Your task to perform on an android device: allow notifications from all sites in the chrome app Image 0: 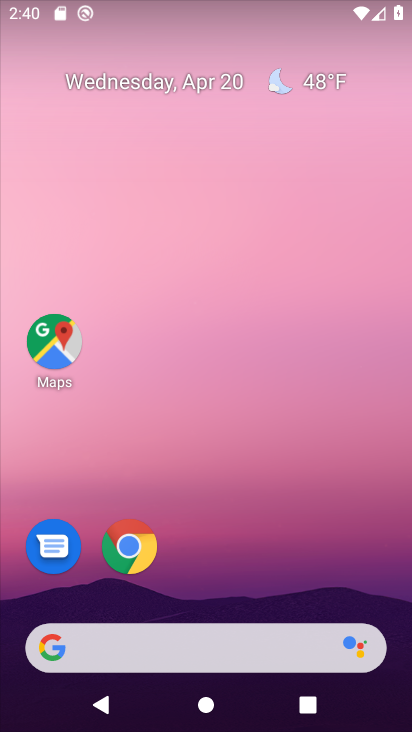
Step 0: click (234, 339)
Your task to perform on an android device: allow notifications from all sites in the chrome app Image 1: 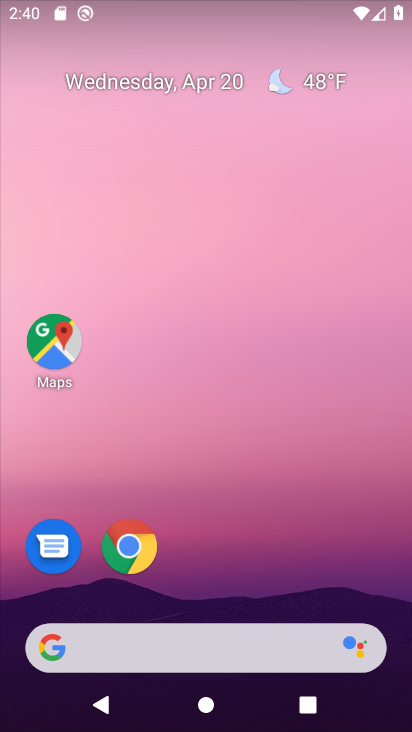
Step 1: drag from (199, 633) to (250, 314)
Your task to perform on an android device: allow notifications from all sites in the chrome app Image 2: 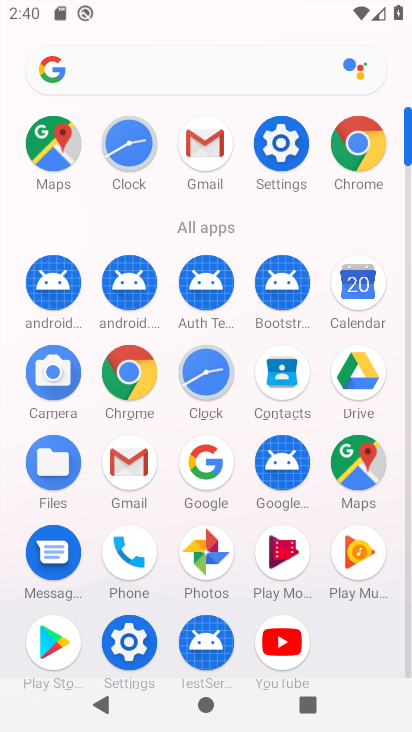
Step 2: click (132, 361)
Your task to perform on an android device: allow notifications from all sites in the chrome app Image 3: 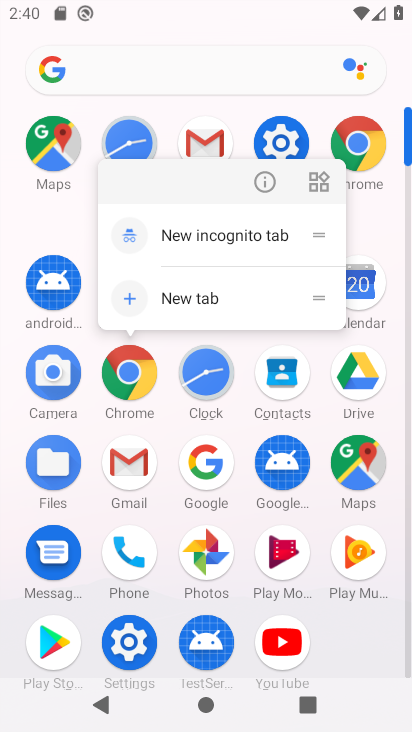
Step 3: click (131, 359)
Your task to perform on an android device: allow notifications from all sites in the chrome app Image 4: 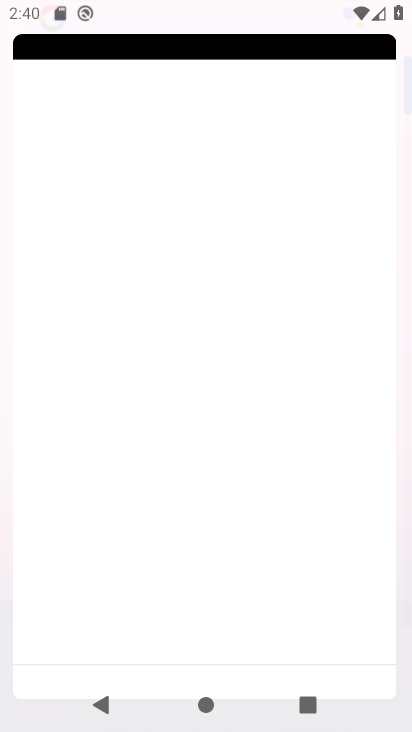
Step 4: click (131, 359)
Your task to perform on an android device: allow notifications from all sites in the chrome app Image 5: 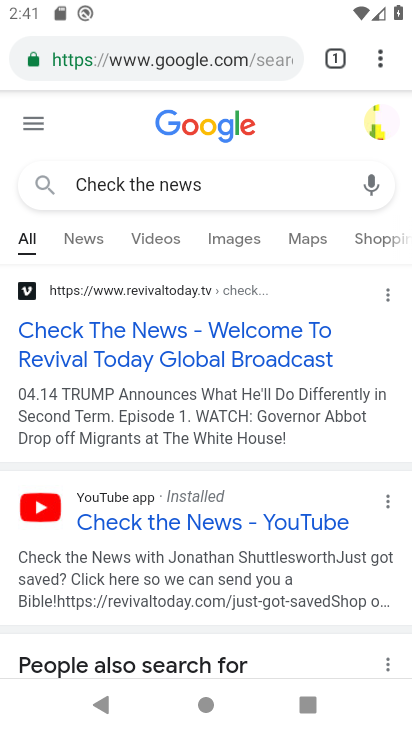
Step 5: click (382, 50)
Your task to perform on an android device: allow notifications from all sites in the chrome app Image 6: 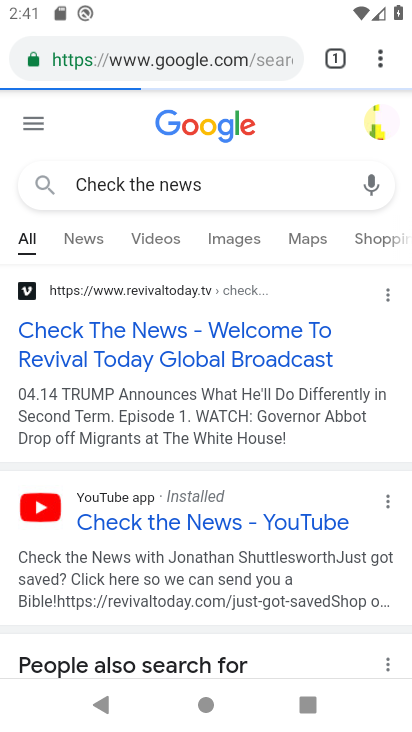
Step 6: click (376, 51)
Your task to perform on an android device: allow notifications from all sites in the chrome app Image 7: 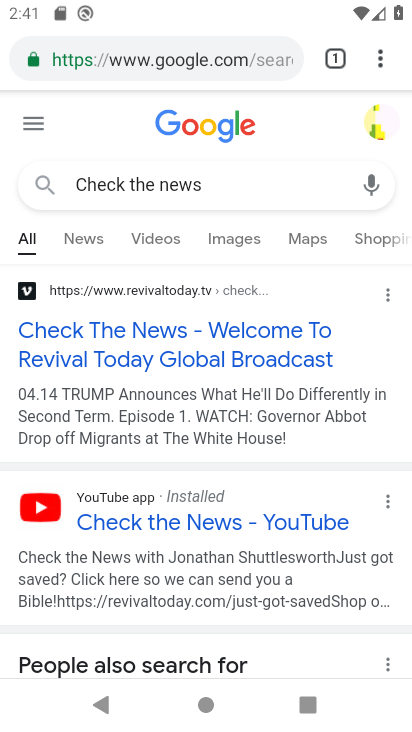
Step 7: click (376, 51)
Your task to perform on an android device: allow notifications from all sites in the chrome app Image 8: 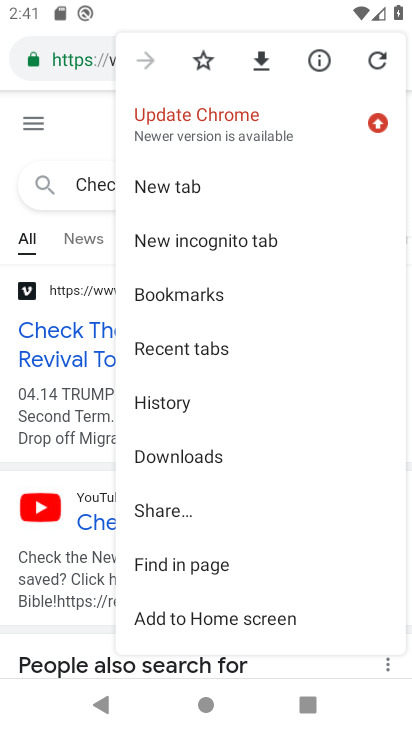
Step 8: drag from (277, 629) to (278, 330)
Your task to perform on an android device: allow notifications from all sites in the chrome app Image 9: 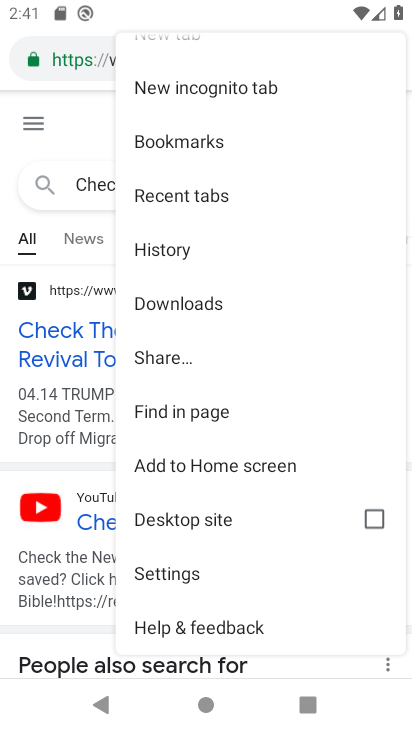
Step 9: click (196, 572)
Your task to perform on an android device: allow notifications from all sites in the chrome app Image 10: 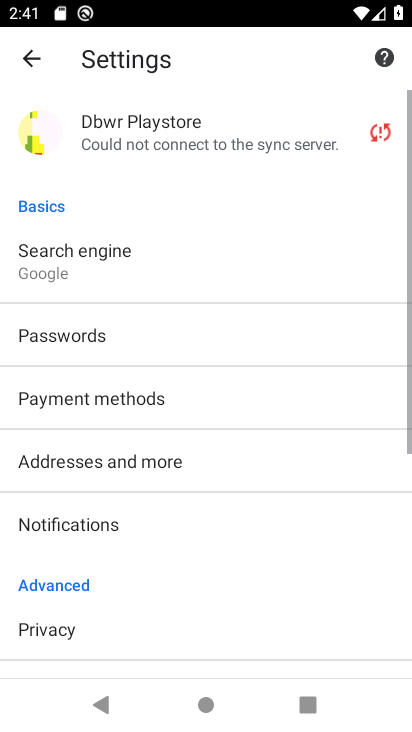
Step 10: drag from (122, 538) to (182, 191)
Your task to perform on an android device: allow notifications from all sites in the chrome app Image 11: 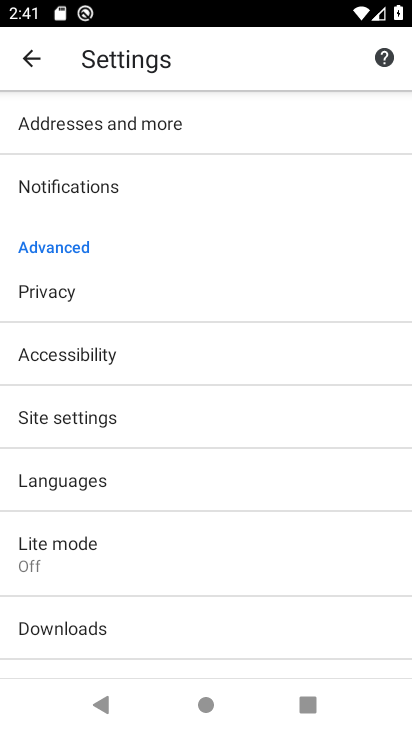
Step 11: click (108, 420)
Your task to perform on an android device: allow notifications from all sites in the chrome app Image 12: 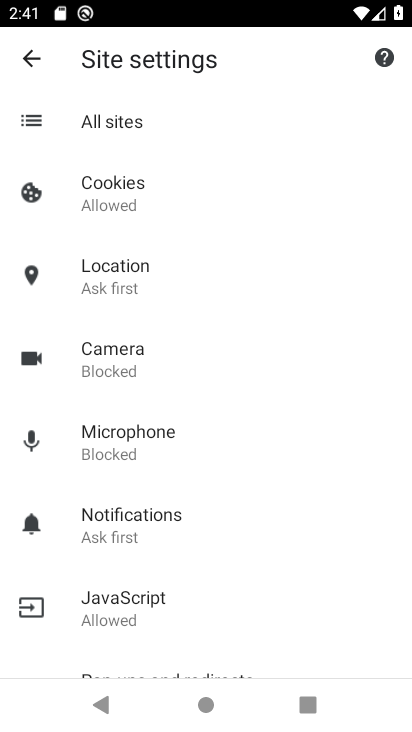
Step 12: drag from (141, 521) to (212, 224)
Your task to perform on an android device: allow notifications from all sites in the chrome app Image 13: 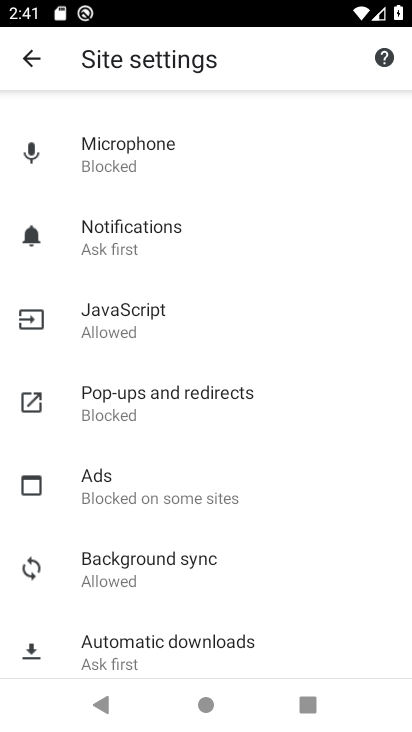
Step 13: drag from (170, 250) to (172, 603)
Your task to perform on an android device: allow notifications from all sites in the chrome app Image 14: 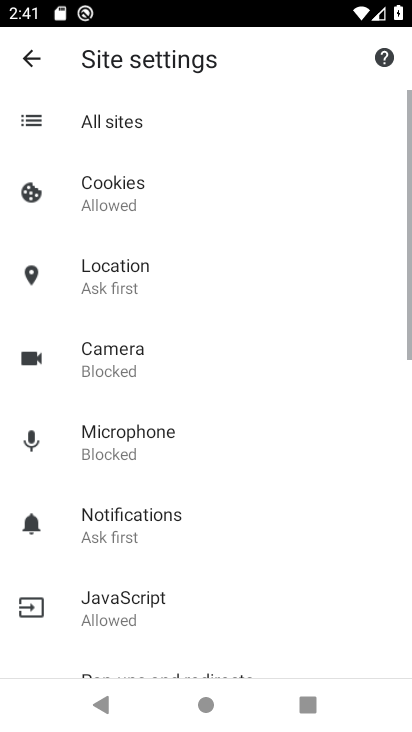
Step 14: click (158, 183)
Your task to perform on an android device: allow notifications from all sites in the chrome app Image 15: 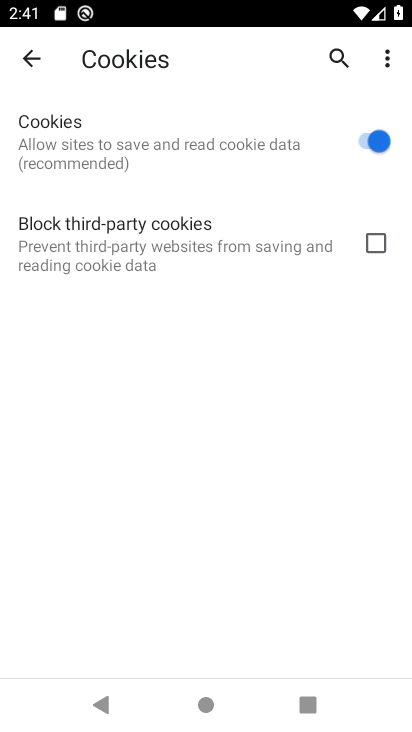
Step 15: click (30, 60)
Your task to perform on an android device: allow notifications from all sites in the chrome app Image 16: 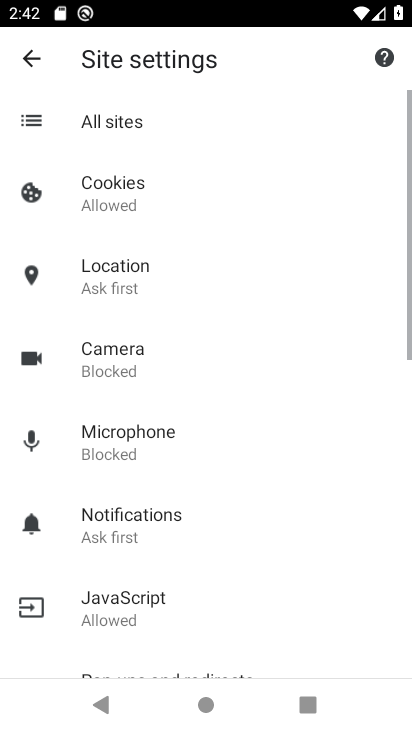
Step 16: click (165, 271)
Your task to perform on an android device: allow notifications from all sites in the chrome app Image 17: 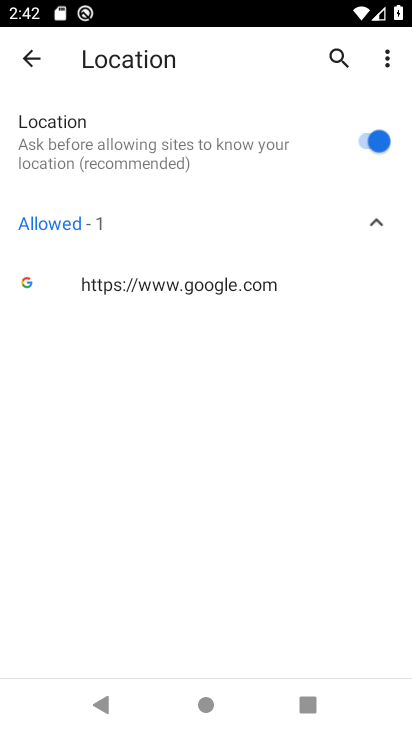
Step 17: click (32, 52)
Your task to perform on an android device: allow notifications from all sites in the chrome app Image 18: 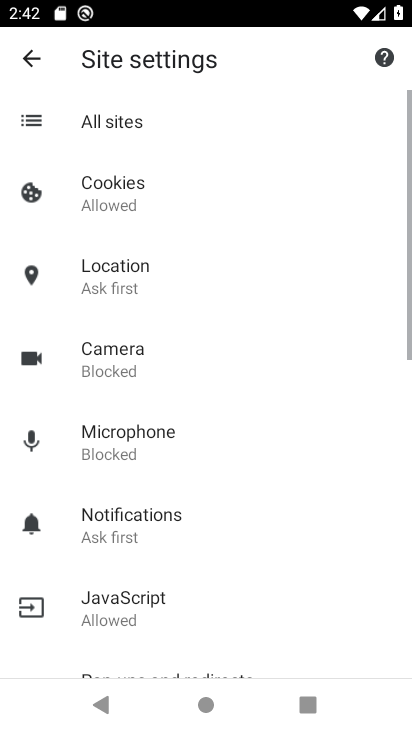
Step 18: click (141, 383)
Your task to perform on an android device: allow notifications from all sites in the chrome app Image 19: 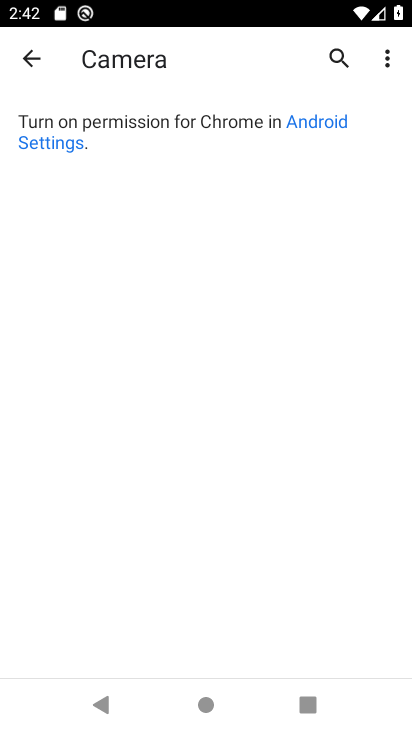
Step 19: click (39, 63)
Your task to perform on an android device: allow notifications from all sites in the chrome app Image 20: 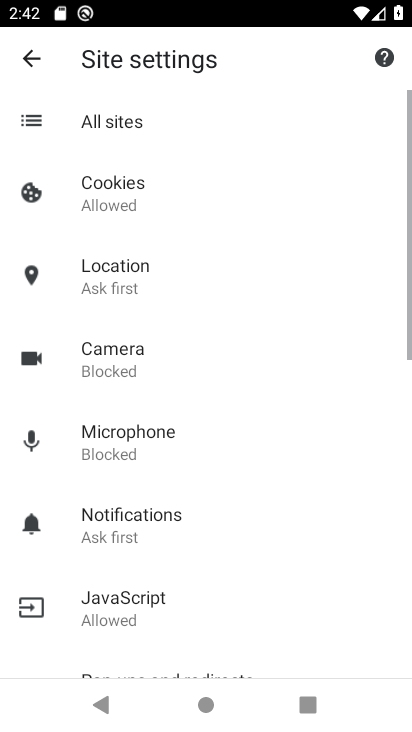
Step 20: click (137, 465)
Your task to perform on an android device: allow notifications from all sites in the chrome app Image 21: 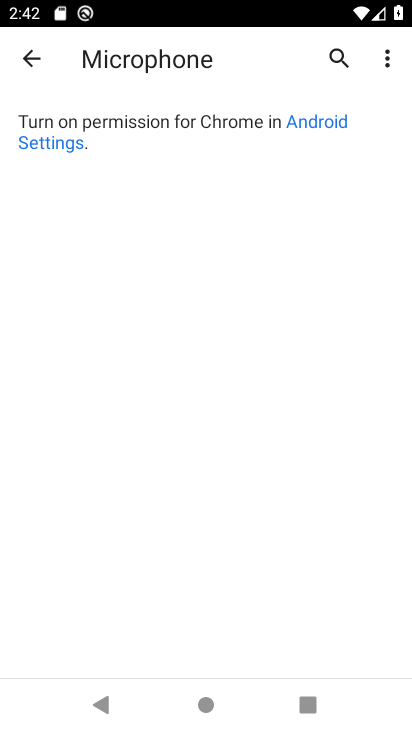
Step 21: click (30, 50)
Your task to perform on an android device: allow notifications from all sites in the chrome app Image 22: 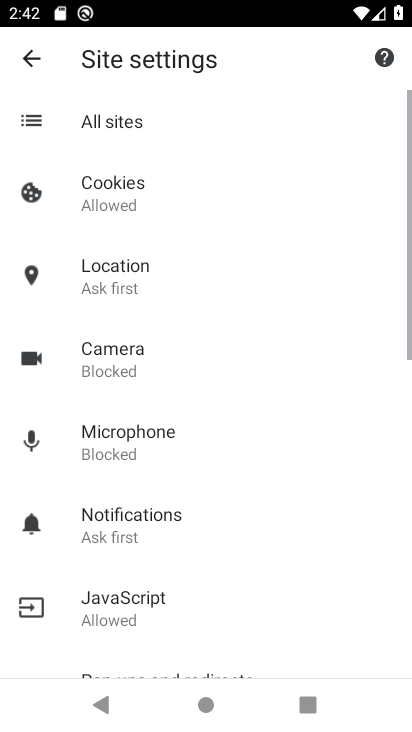
Step 22: click (145, 549)
Your task to perform on an android device: allow notifications from all sites in the chrome app Image 23: 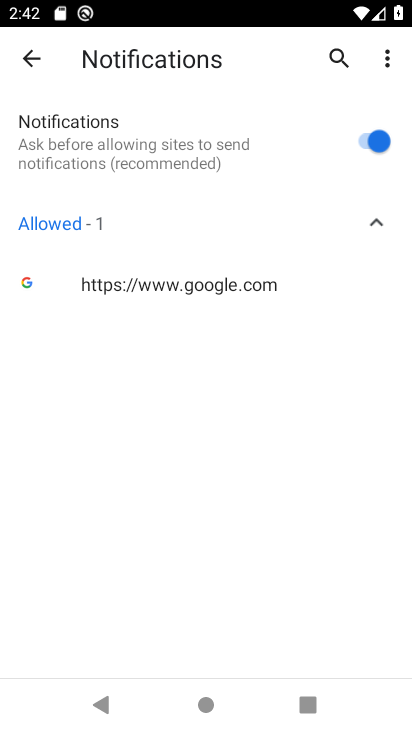
Step 23: click (14, 55)
Your task to perform on an android device: allow notifications from all sites in the chrome app Image 24: 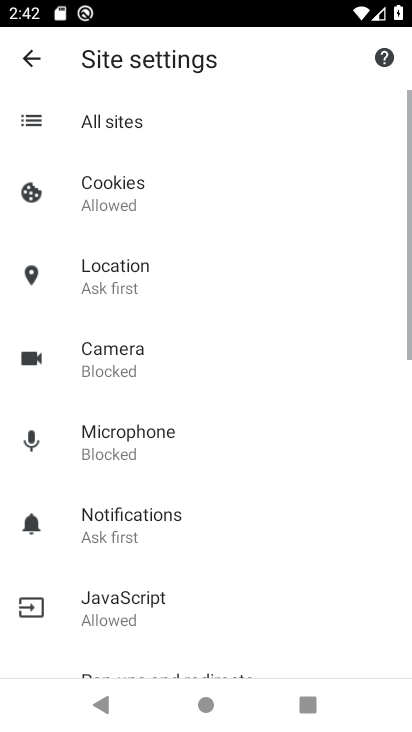
Step 24: drag from (154, 603) to (293, 203)
Your task to perform on an android device: allow notifications from all sites in the chrome app Image 25: 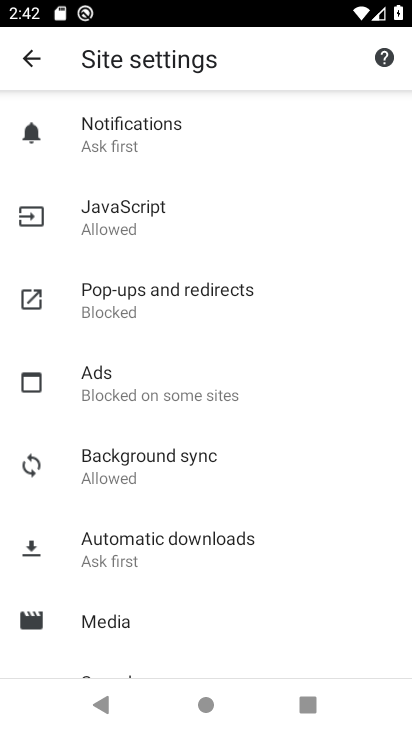
Step 25: click (147, 196)
Your task to perform on an android device: allow notifications from all sites in the chrome app Image 26: 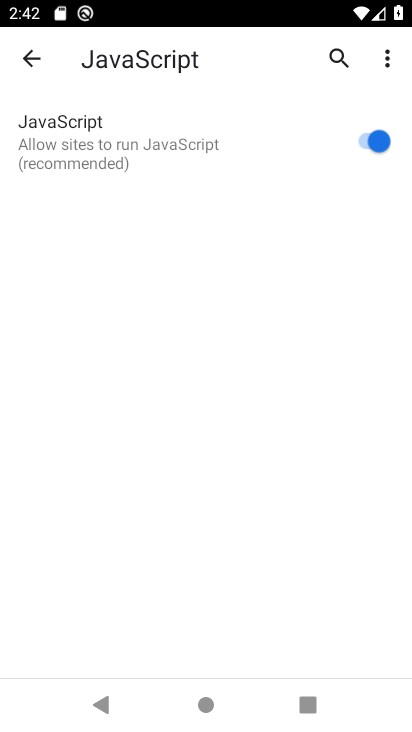
Step 26: click (36, 58)
Your task to perform on an android device: allow notifications from all sites in the chrome app Image 27: 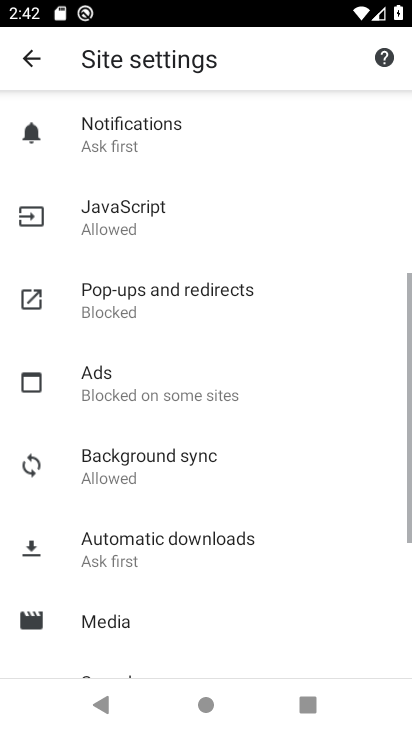
Step 27: click (178, 333)
Your task to perform on an android device: allow notifications from all sites in the chrome app Image 28: 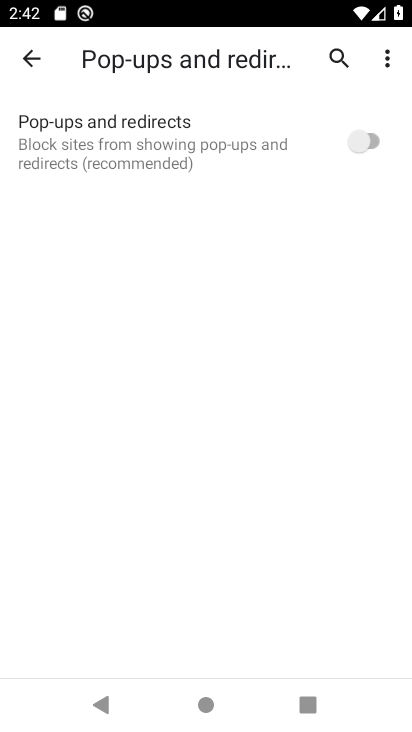
Step 28: click (385, 131)
Your task to perform on an android device: allow notifications from all sites in the chrome app Image 29: 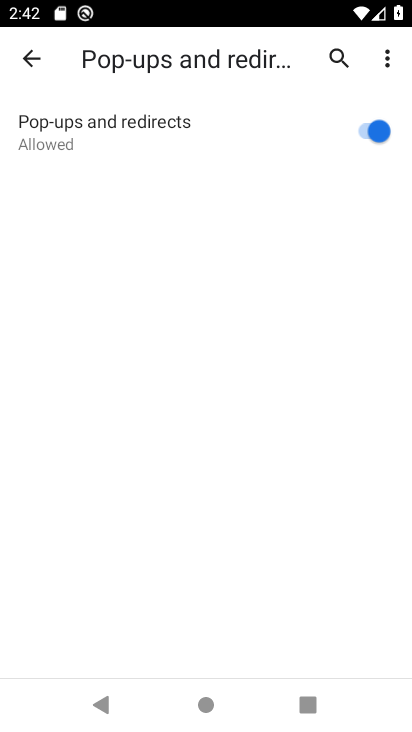
Step 29: click (30, 61)
Your task to perform on an android device: allow notifications from all sites in the chrome app Image 30: 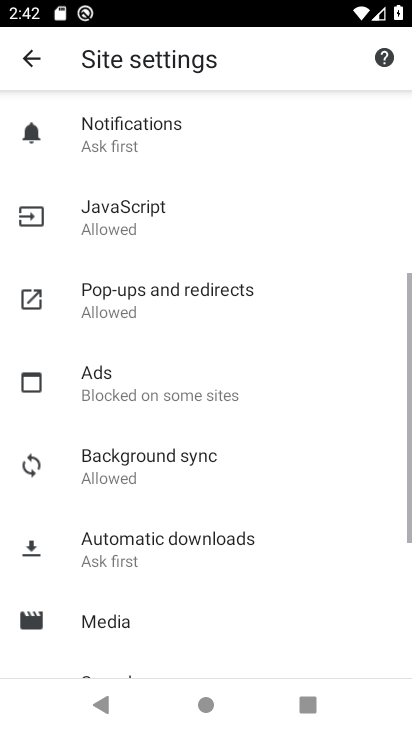
Step 30: click (156, 399)
Your task to perform on an android device: allow notifications from all sites in the chrome app Image 31: 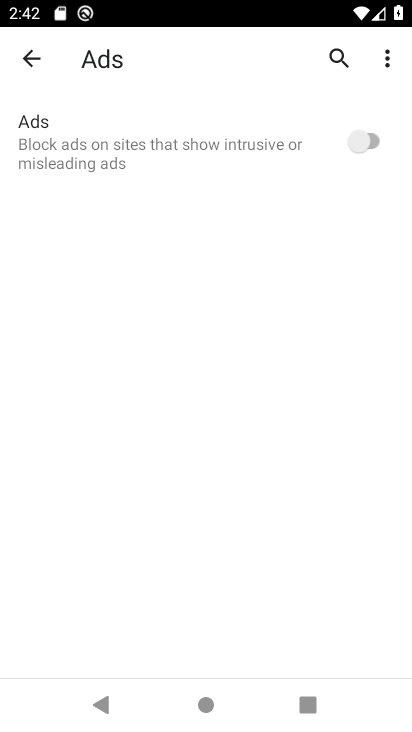
Step 31: click (356, 133)
Your task to perform on an android device: allow notifications from all sites in the chrome app Image 32: 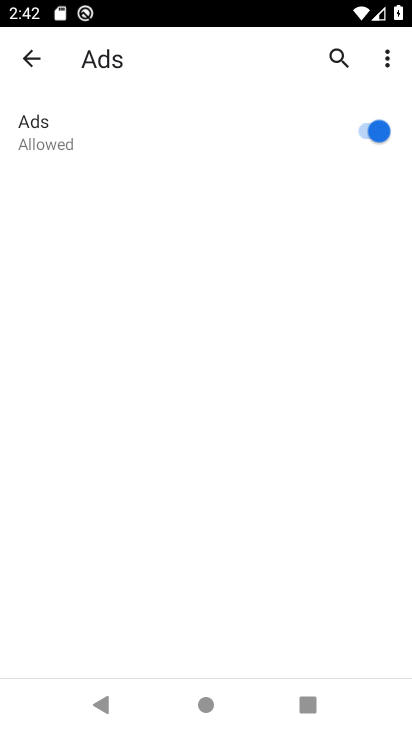
Step 32: click (16, 54)
Your task to perform on an android device: allow notifications from all sites in the chrome app Image 33: 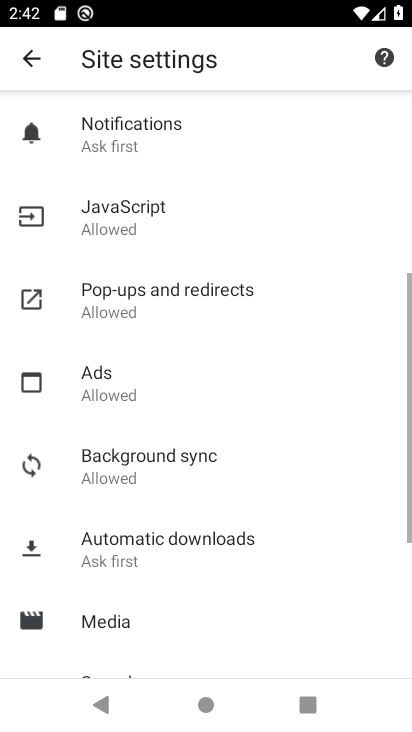
Step 33: click (144, 473)
Your task to perform on an android device: allow notifications from all sites in the chrome app Image 34: 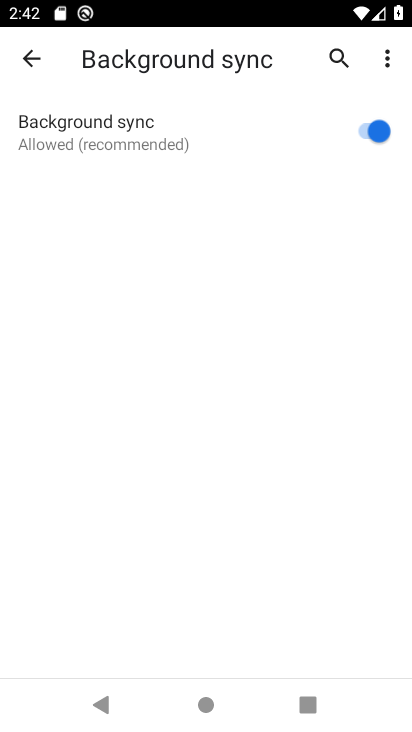
Step 34: click (38, 54)
Your task to perform on an android device: allow notifications from all sites in the chrome app Image 35: 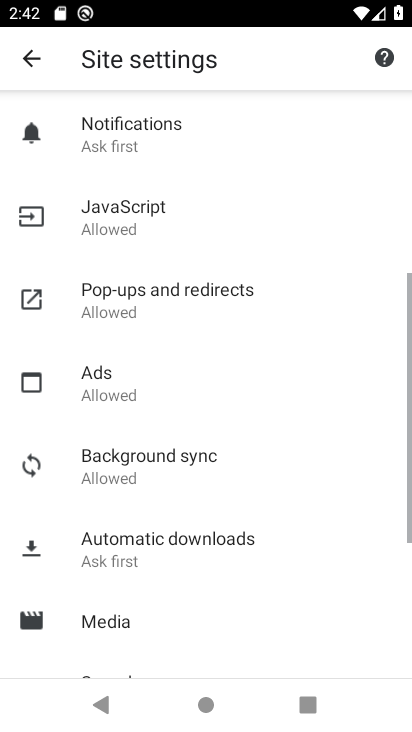
Step 35: click (159, 556)
Your task to perform on an android device: allow notifications from all sites in the chrome app Image 36: 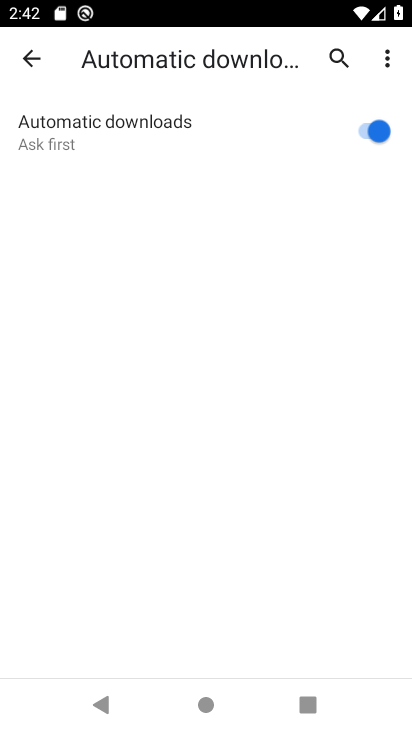
Step 36: click (28, 61)
Your task to perform on an android device: allow notifications from all sites in the chrome app Image 37: 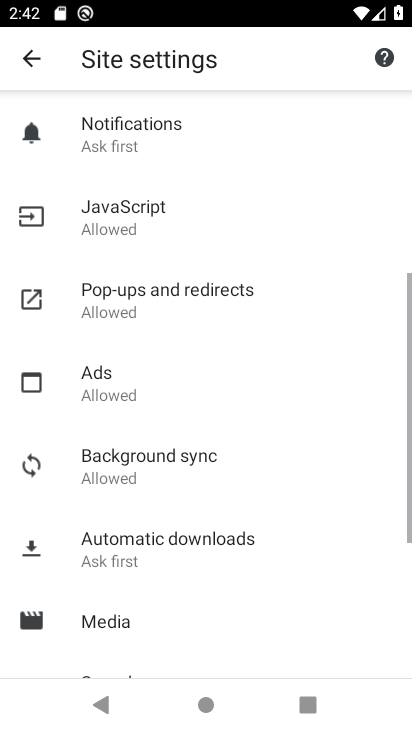
Step 37: drag from (212, 582) to (302, 276)
Your task to perform on an android device: allow notifications from all sites in the chrome app Image 38: 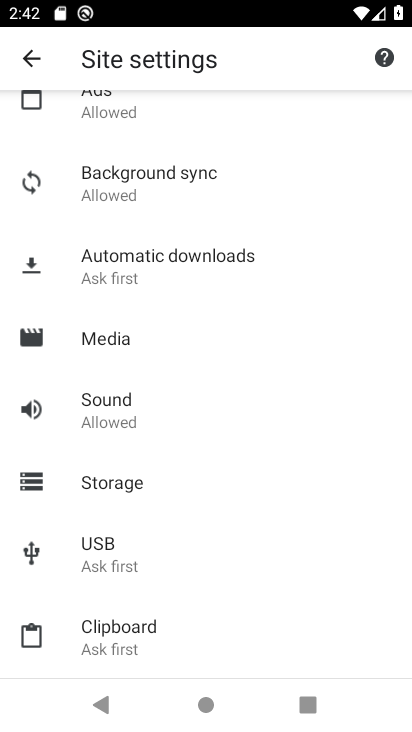
Step 38: click (151, 312)
Your task to perform on an android device: allow notifications from all sites in the chrome app Image 39: 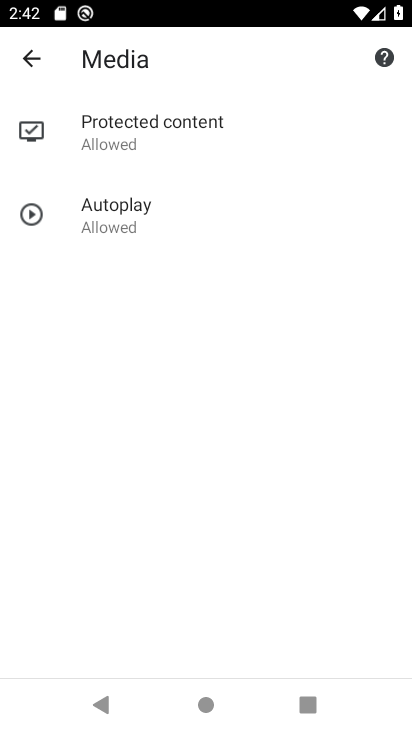
Step 39: click (32, 59)
Your task to perform on an android device: allow notifications from all sites in the chrome app Image 40: 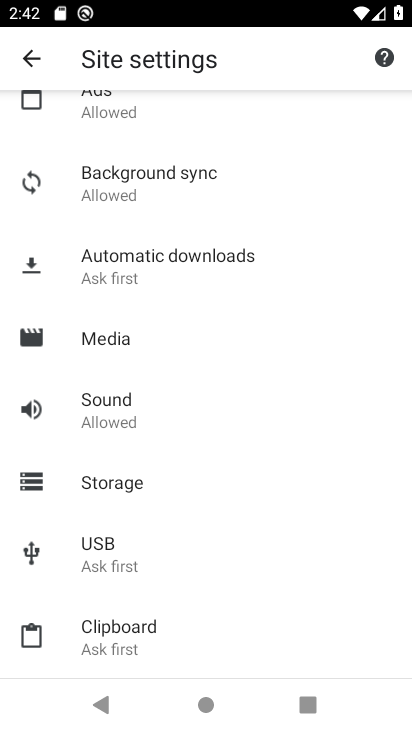
Step 40: click (167, 415)
Your task to perform on an android device: allow notifications from all sites in the chrome app Image 41: 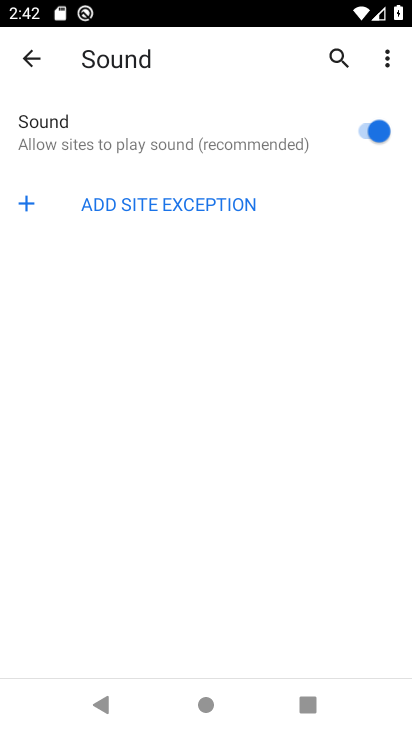
Step 41: click (35, 54)
Your task to perform on an android device: allow notifications from all sites in the chrome app Image 42: 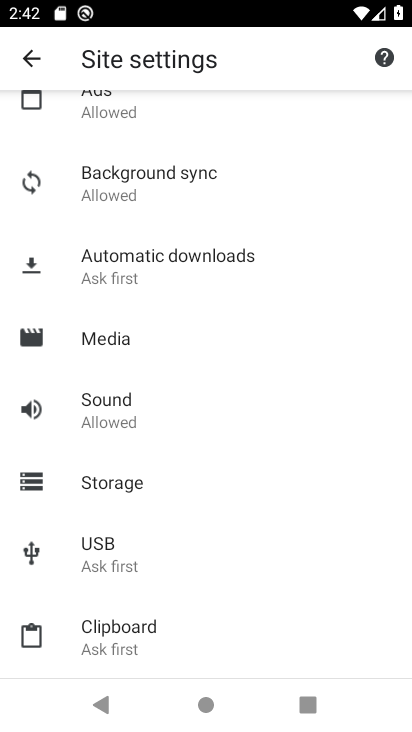
Step 42: drag from (155, 621) to (224, 290)
Your task to perform on an android device: allow notifications from all sites in the chrome app Image 43: 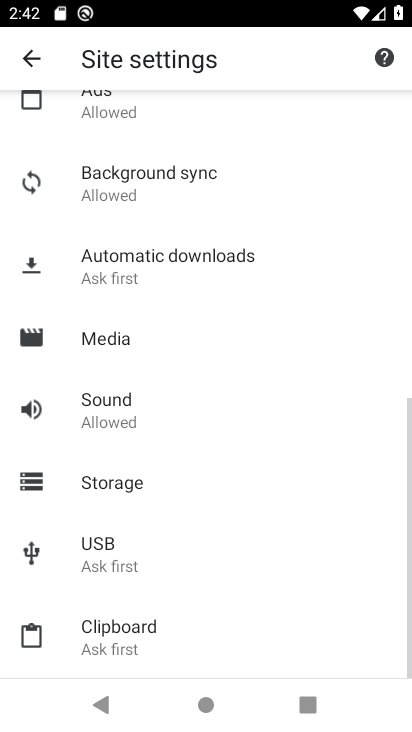
Step 43: click (171, 624)
Your task to perform on an android device: allow notifications from all sites in the chrome app Image 44: 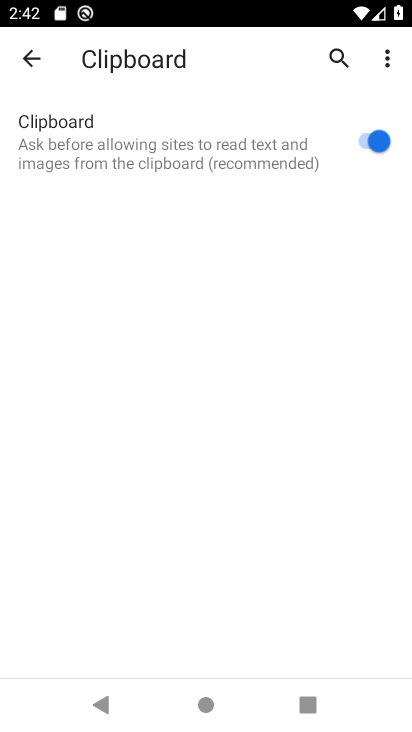
Step 44: task complete